Your task to perform on an android device: Toggle the flashlight Image 0: 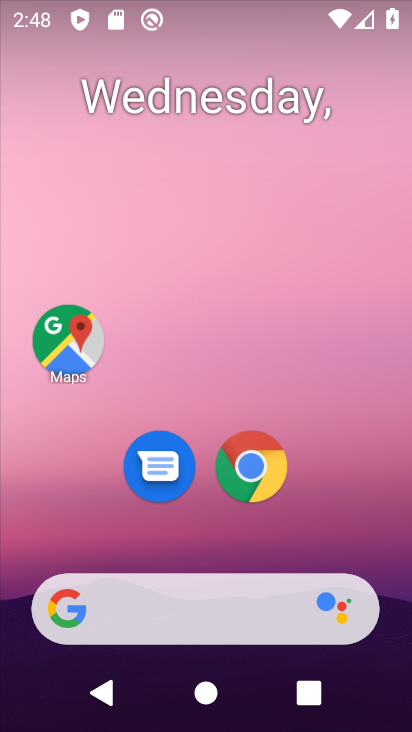
Step 0: drag from (250, 21) to (246, 461)
Your task to perform on an android device: Toggle the flashlight Image 1: 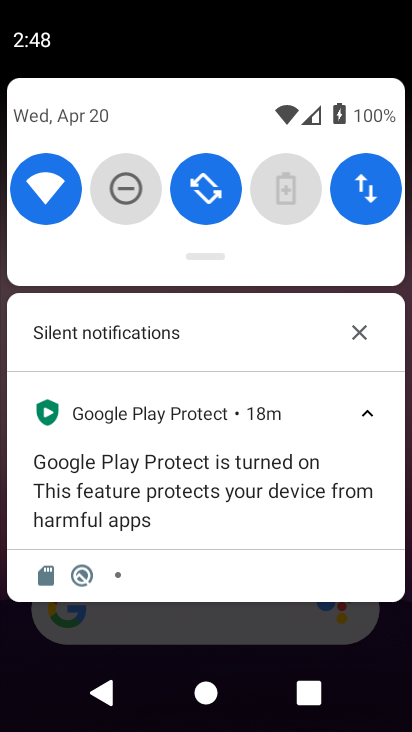
Step 1: drag from (204, 253) to (208, 537)
Your task to perform on an android device: Toggle the flashlight Image 2: 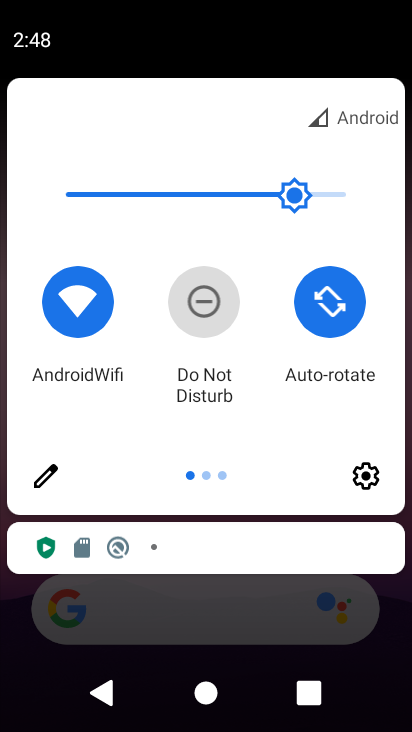
Step 2: click (52, 478)
Your task to perform on an android device: Toggle the flashlight Image 3: 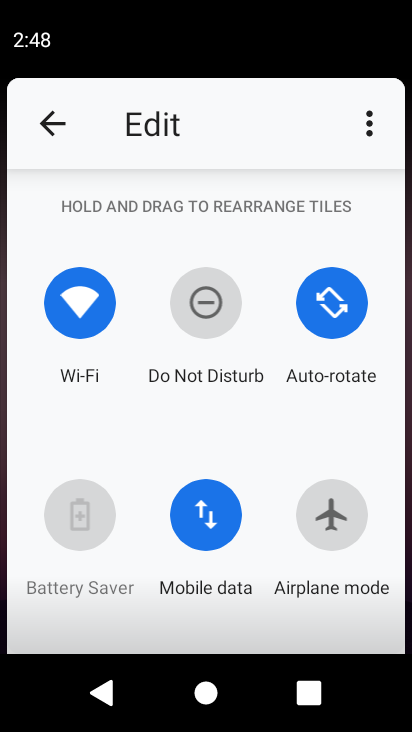
Step 3: task complete